Your task to perform on an android device: Open display settings Image 0: 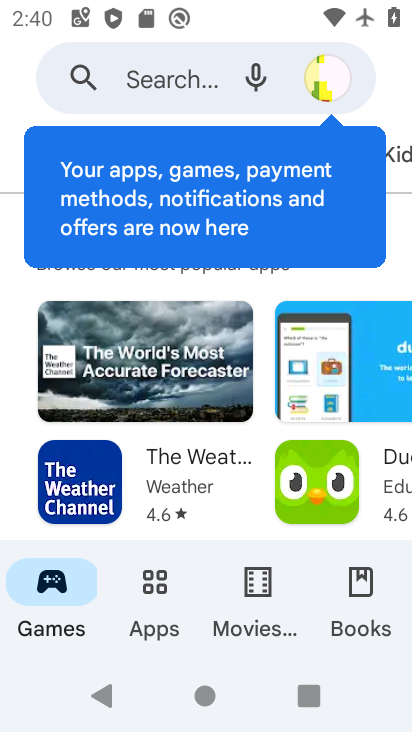
Step 0: press home button
Your task to perform on an android device: Open display settings Image 1: 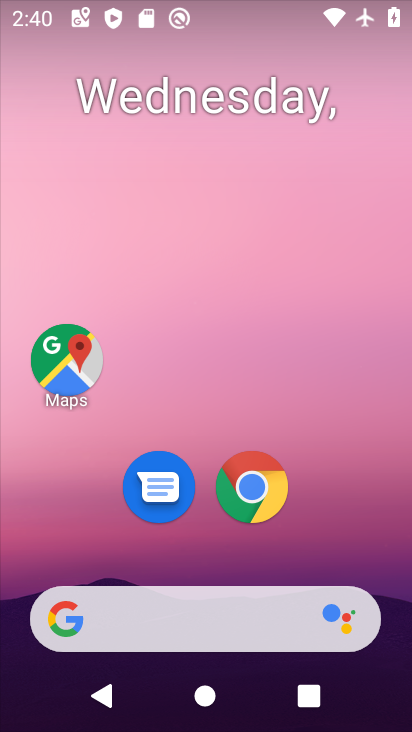
Step 1: drag from (342, 500) to (380, 16)
Your task to perform on an android device: Open display settings Image 2: 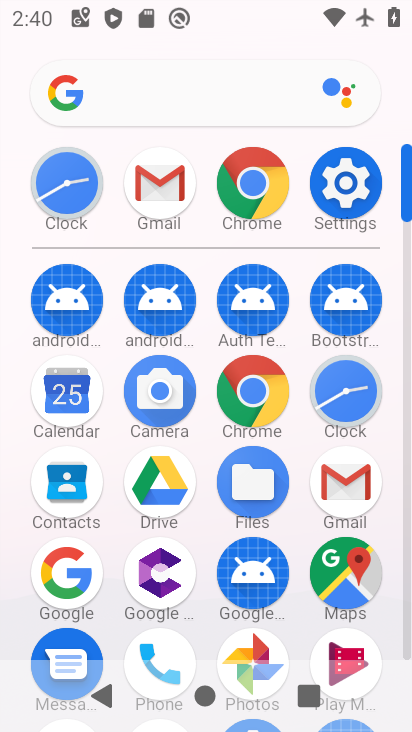
Step 2: click (366, 191)
Your task to perform on an android device: Open display settings Image 3: 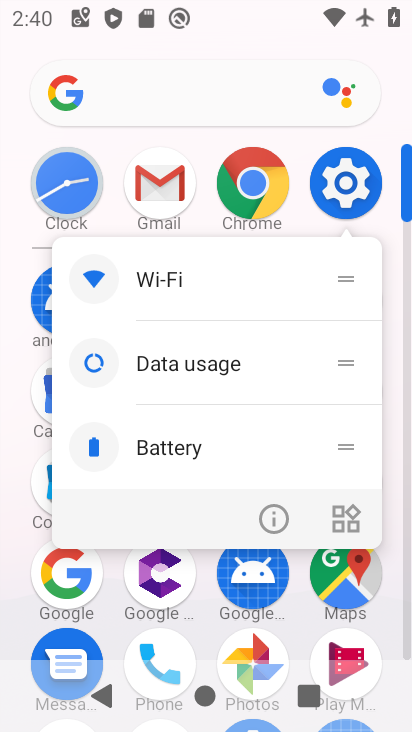
Step 3: click (366, 191)
Your task to perform on an android device: Open display settings Image 4: 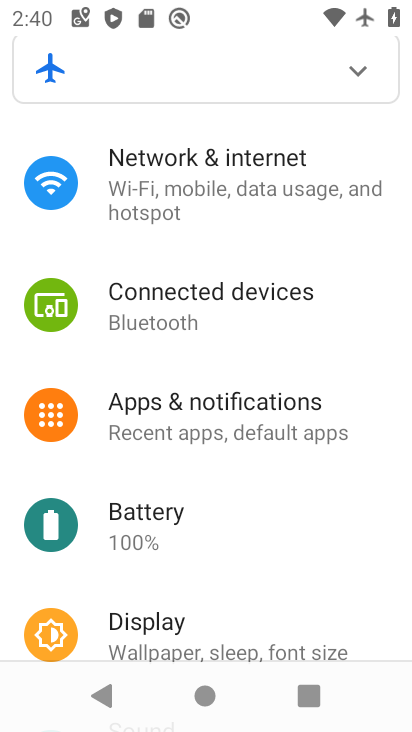
Step 4: click (192, 641)
Your task to perform on an android device: Open display settings Image 5: 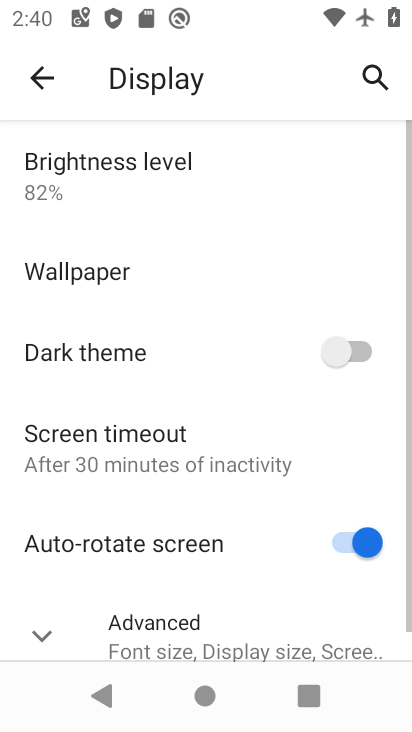
Step 5: task complete